Your task to perform on an android device: turn off improve location accuracy Image 0: 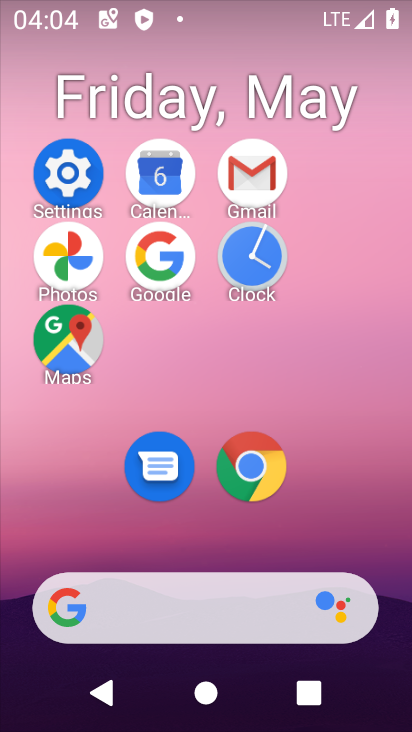
Step 0: click (71, 166)
Your task to perform on an android device: turn off improve location accuracy Image 1: 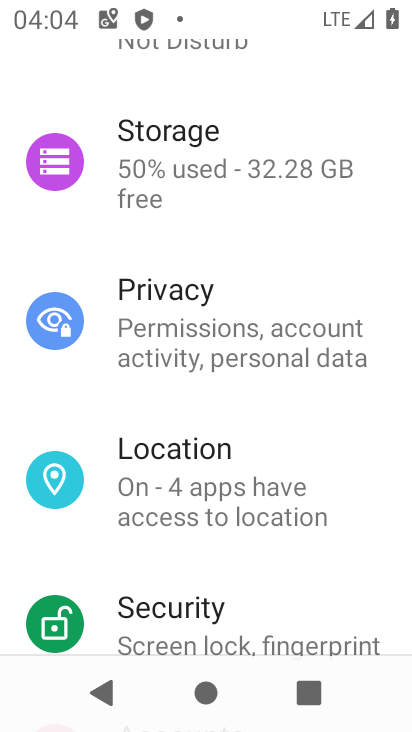
Step 1: drag from (240, 547) to (269, 184)
Your task to perform on an android device: turn off improve location accuracy Image 2: 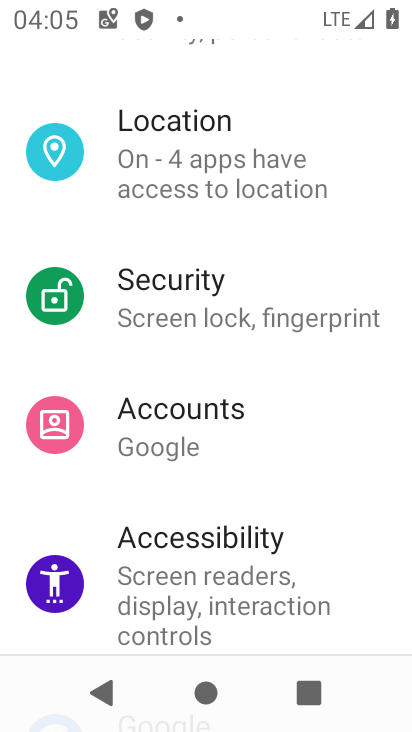
Step 2: drag from (303, 517) to (339, 149)
Your task to perform on an android device: turn off improve location accuracy Image 3: 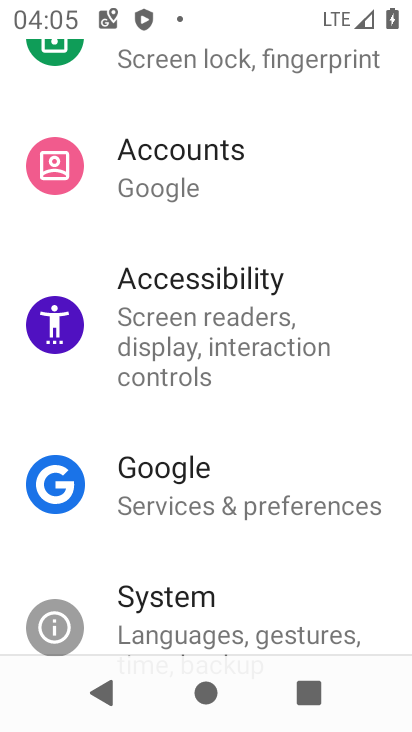
Step 3: drag from (312, 176) to (302, 554)
Your task to perform on an android device: turn off improve location accuracy Image 4: 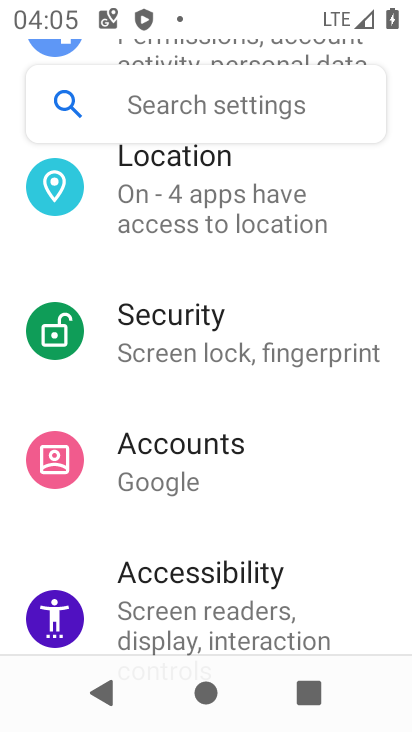
Step 4: drag from (321, 136) to (293, 576)
Your task to perform on an android device: turn off improve location accuracy Image 5: 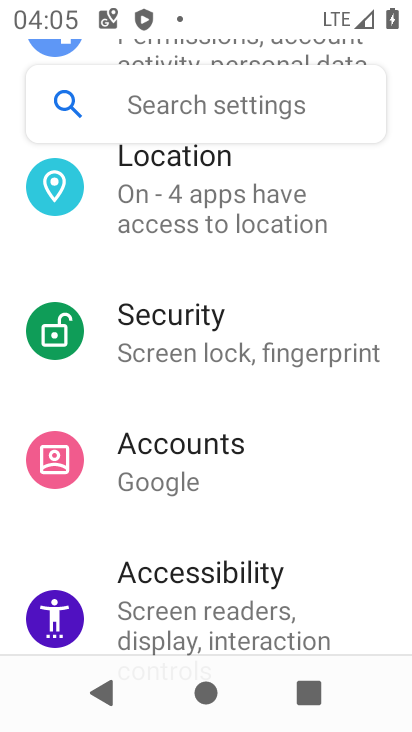
Step 5: click (273, 195)
Your task to perform on an android device: turn off improve location accuracy Image 6: 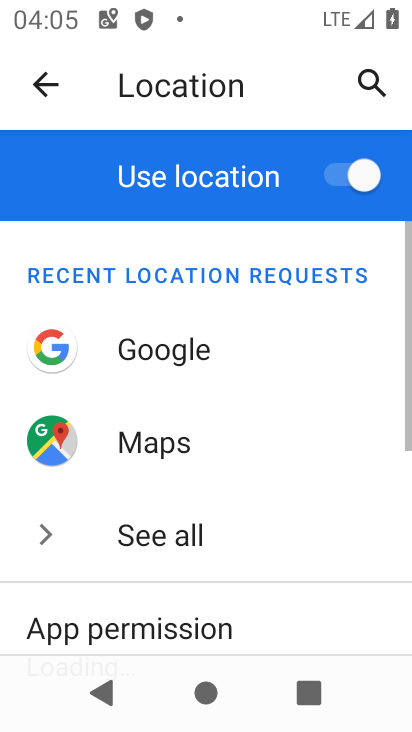
Step 6: drag from (238, 574) to (292, 137)
Your task to perform on an android device: turn off improve location accuracy Image 7: 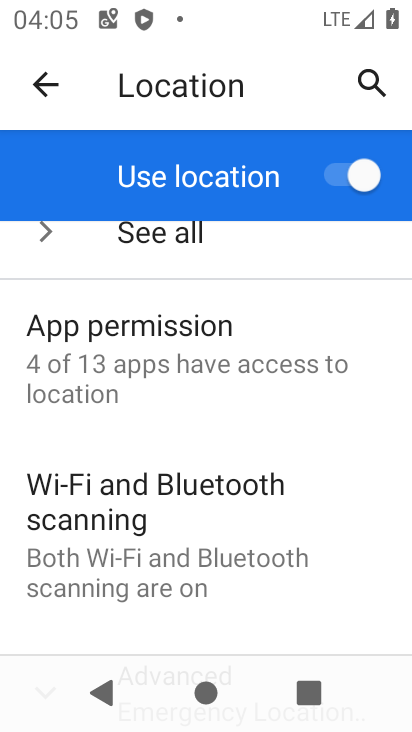
Step 7: drag from (251, 492) to (274, 202)
Your task to perform on an android device: turn off improve location accuracy Image 8: 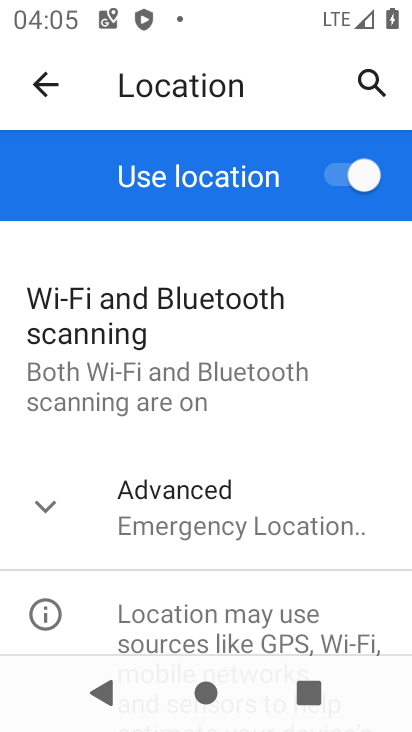
Step 8: click (203, 525)
Your task to perform on an android device: turn off improve location accuracy Image 9: 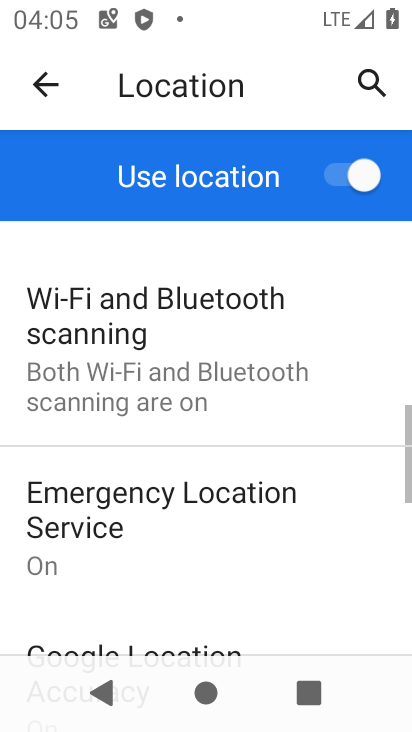
Step 9: drag from (203, 525) to (243, 216)
Your task to perform on an android device: turn off improve location accuracy Image 10: 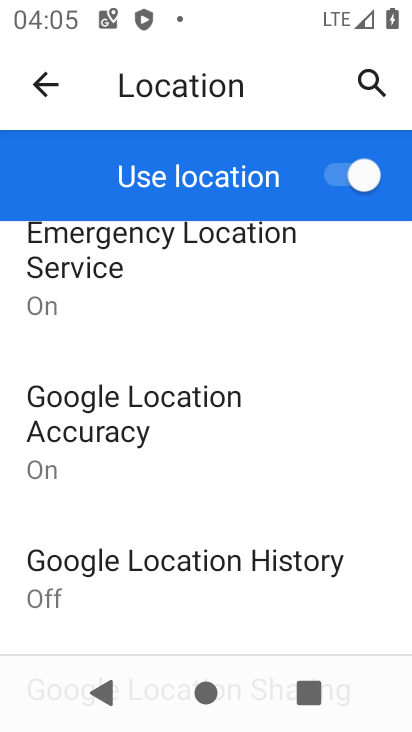
Step 10: click (202, 450)
Your task to perform on an android device: turn off improve location accuracy Image 11: 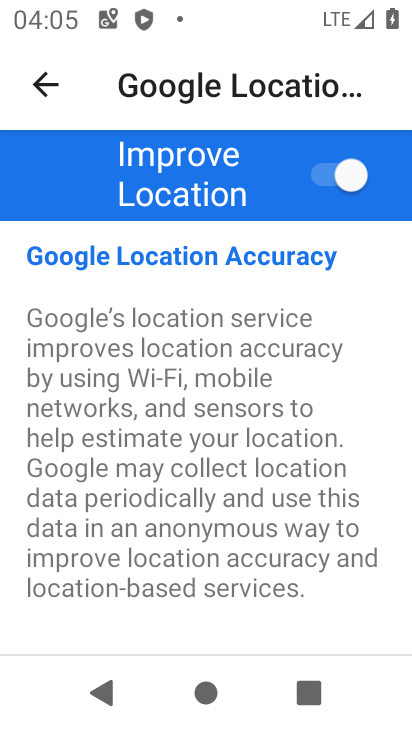
Step 11: click (329, 197)
Your task to perform on an android device: turn off improve location accuracy Image 12: 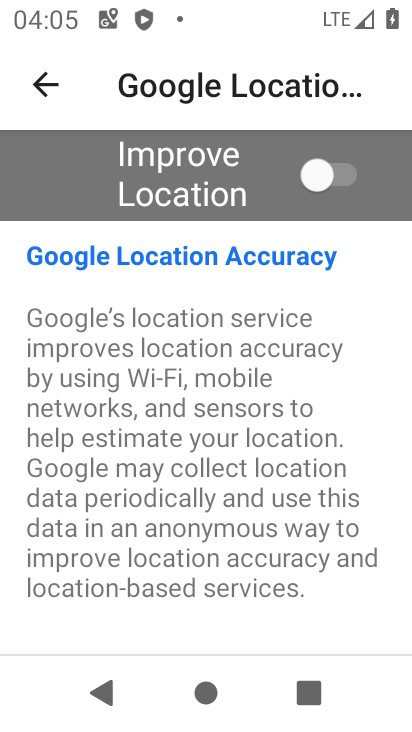
Step 12: task complete